Your task to perform on an android device: Go to Yahoo.com Image 0: 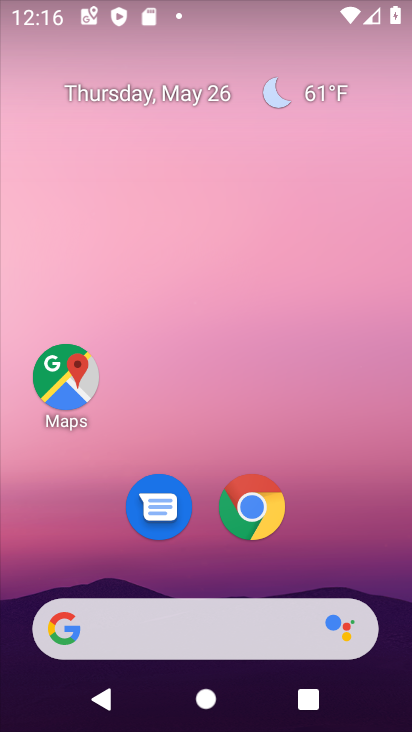
Step 0: click (209, 644)
Your task to perform on an android device: Go to Yahoo.com Image 1: 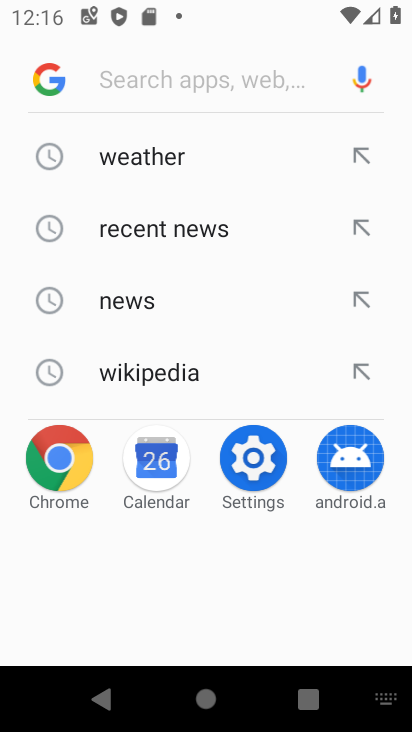
Step 1: type "yahoo.com"
Your task to perform on an android device: Go to Yahoo.com Image 2: 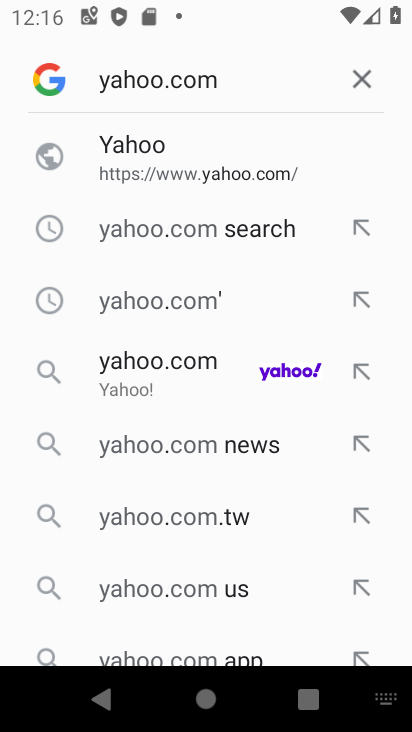
Step 2: click (143, 140)
Your task to perform on an android device: Go to Yahoo.com Image 3: 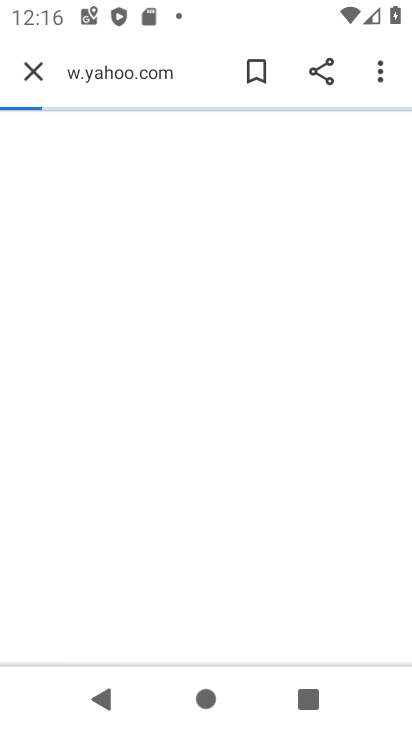
Step 3: task complete